Your task to perform on an android device: Open wifi settings Image 0: 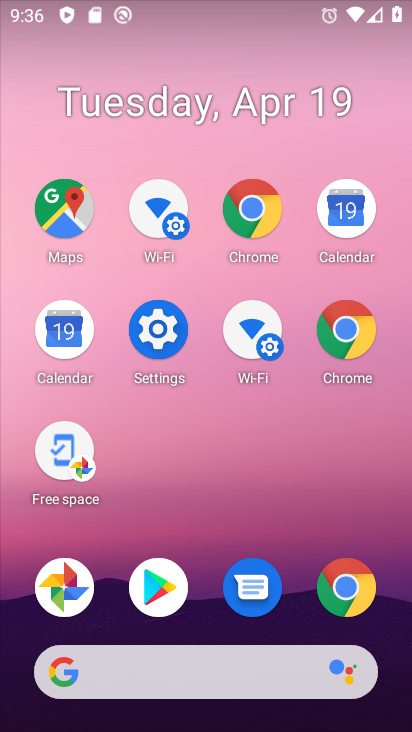
Step 0: click (147, 341)
Your task to perform on an android device: Open wifi settings Image 1: 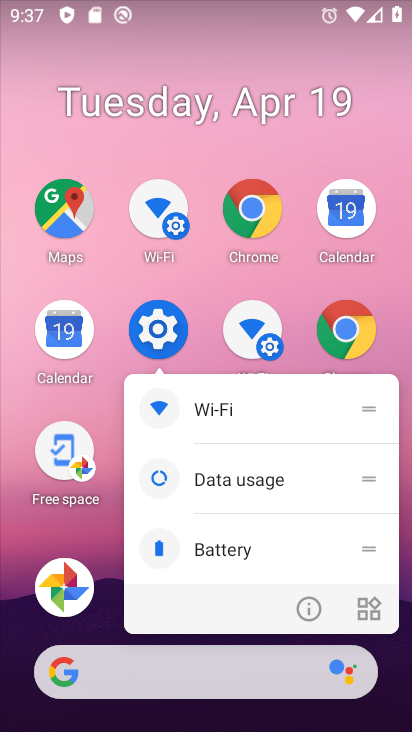
Step 1: click (161, 327)
Your task to perform on an android device: Open wifi settings Image 2: 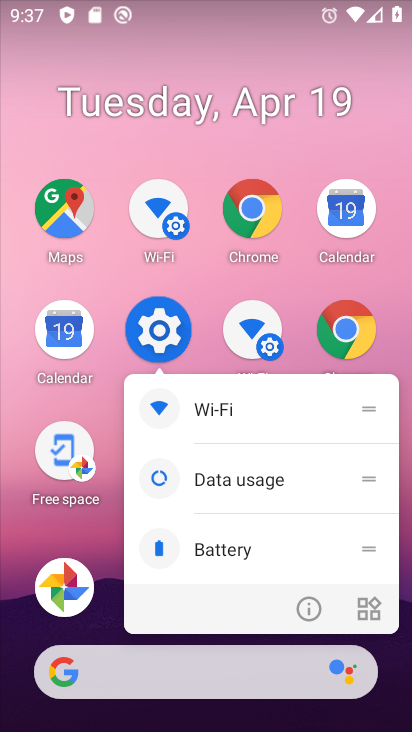
Step 2: click (162, 326)
Your task to perform on an android device: Open wifi settings Image 3: 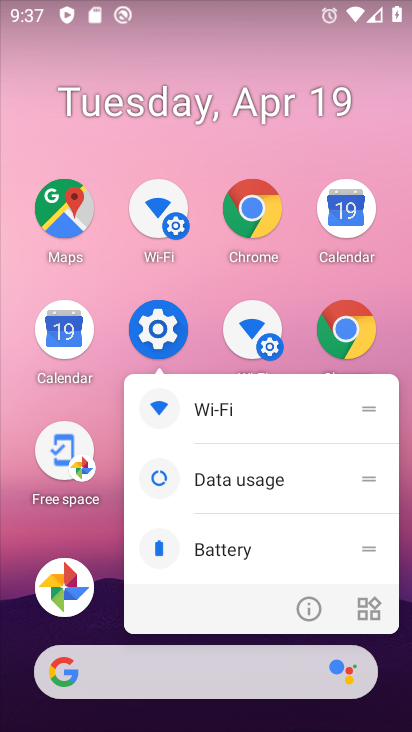
Step 3: click (164, 329)
Your task to perform on an android device: Open wifi settings Image 4: 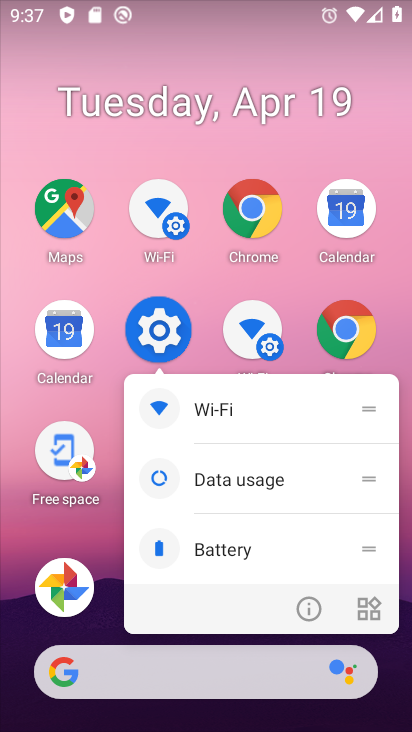
Step 4: click (164, 329)
Your task to perform on an android device: Open wifi settings Image 5: 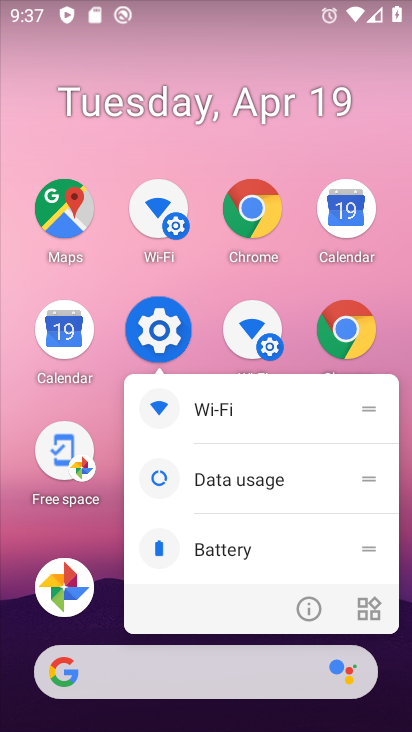
Step 5: click (164, 329)
Your task to perform on an android device: Open wifi settings Image 6: 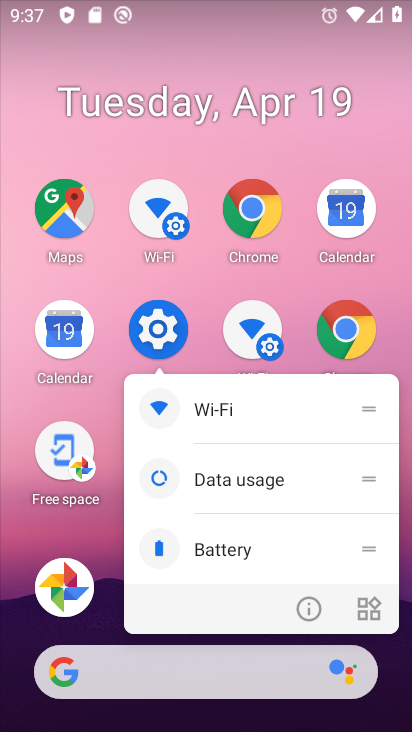
Step 6: click (215, 405)
Your task to perform on an android device: Open wifi settings Image 7: 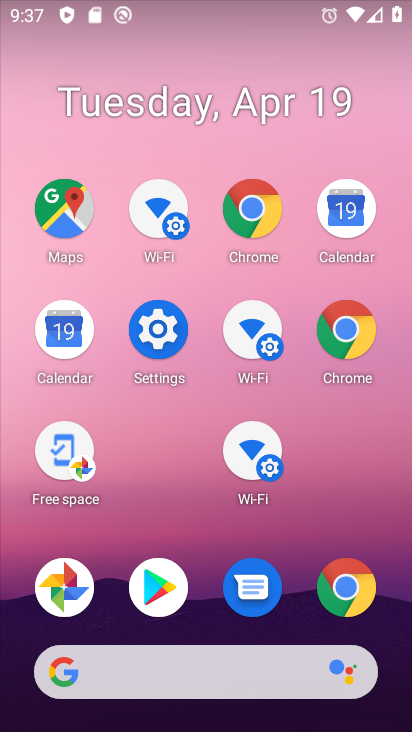
Step 7: click (165, 328)
Your task to perform on an android device: Open wifi settings Image 8: 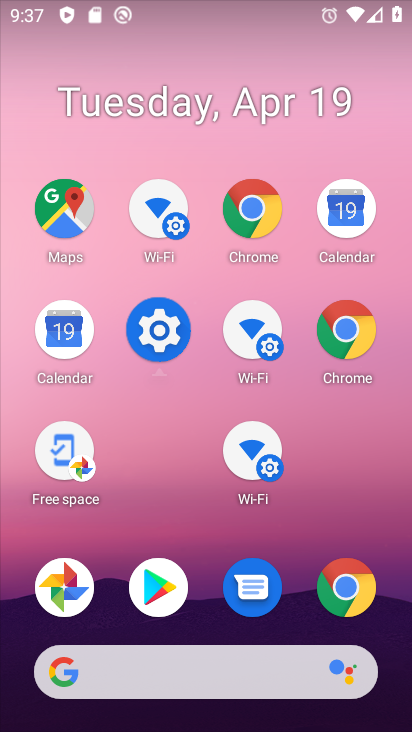
Step 8: click (165, 328)
Your task to perform on an android device: Open wifi settings Image 9: 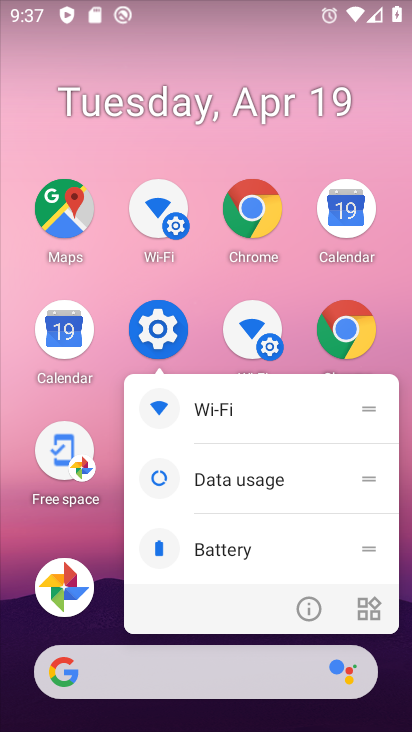
Step 9: click (194, 417)
Your task to perform on an android device: Open wifi settings Image 10: 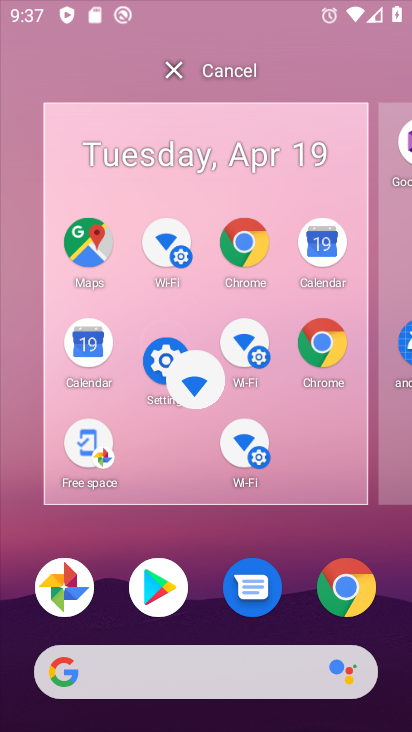
Step 10: click (199, 410)
Your task to perform on an android device: Open wifi settings Image 11: 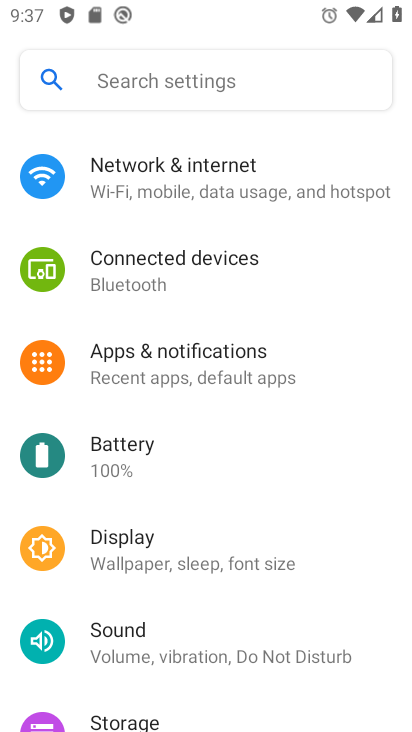
Step 11: click (168, 445)
Your task to perform on an android device: Open wifi settings Image 12: 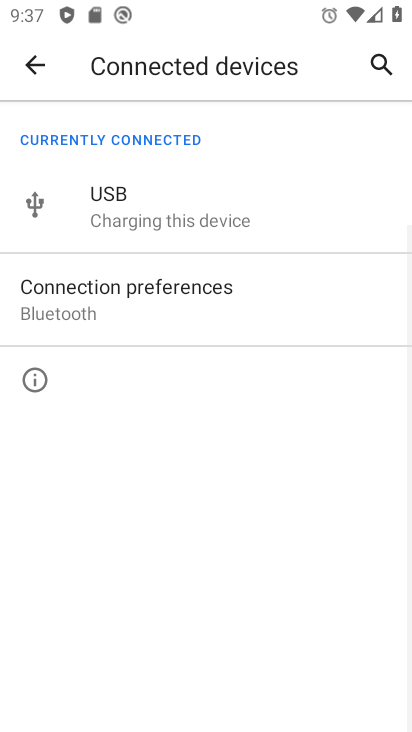
Step 12: click (31, 65)
Your task to perform on an android device: Open wifi settings Image 13: 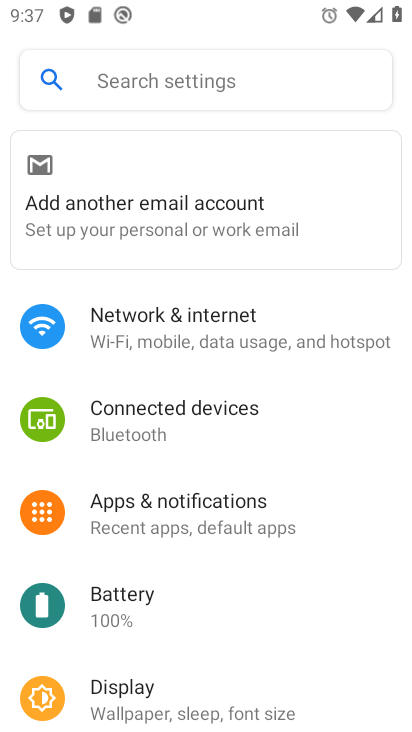
Step 13: click (192, 336)
Your task to perform on an android device: Open wifi settings Image 14: 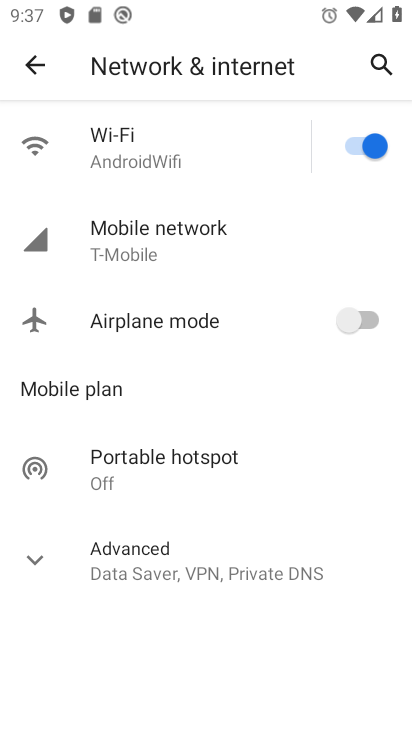
Step 14: task complete